Your task to perform on an android device: uninstall "Nova Launcher" Image 0: 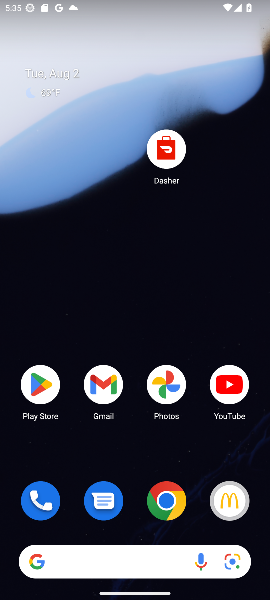
Step 0: click (38, 383)
Your task to perform on an android device: uninstall "Nova Launcher" Image 1: 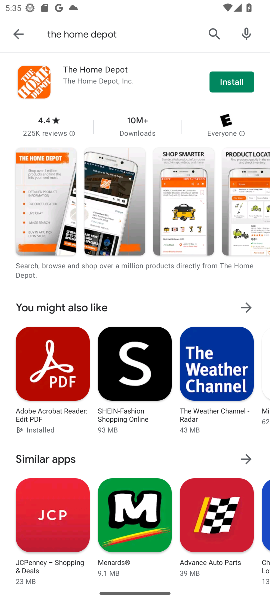
Step 1: click (218, 31)
Your task to perform on an android device: uninstall "Nova Launcher" Image 2: 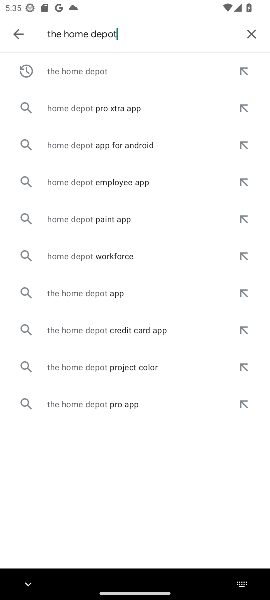
Step 2: click (249, 37)
Your task to perform on an android device: uninstall "Nova Launcher" Image 3: 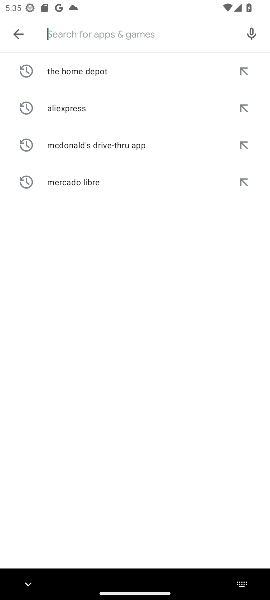
Step 3: type "Nova Launcher"
Your task to perform on an android device: uninstall "Nova Launcher" Image 4: 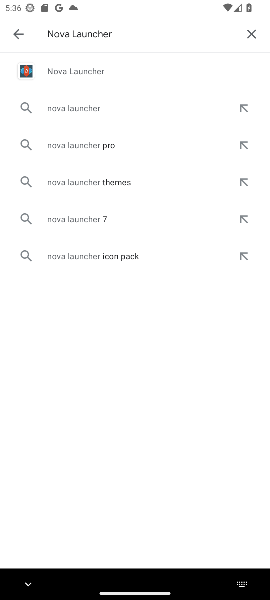
Step 4: press home button
Your task to perform on an android device: uninstall "Nova Launcher" Image 5: 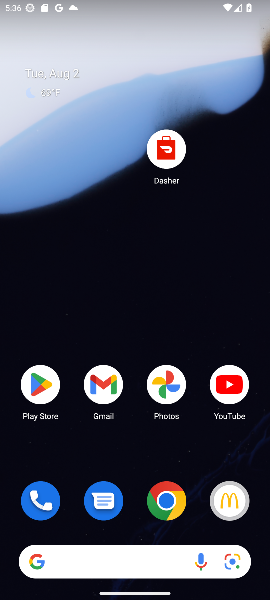
Step 5: click (39, 388)
Your task to perform on an android device: uninstall "Nova Launcher" Image 6: 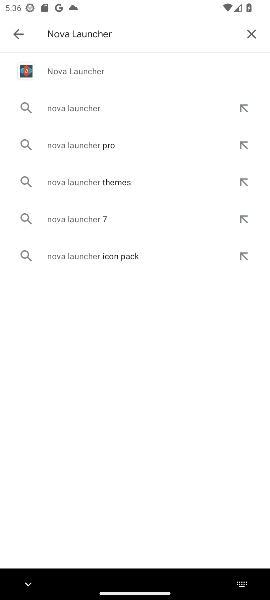
Step 6: click (82, 73)
Your task to perform on an android device: uninstall "Nova Launcher" Image 7: 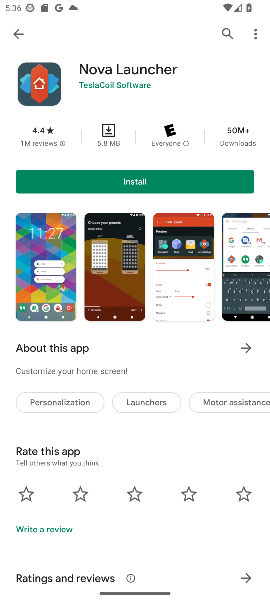
Step 7: task complete